Your task to perform on an android device: Is it going to rain this weekend? Image 0: 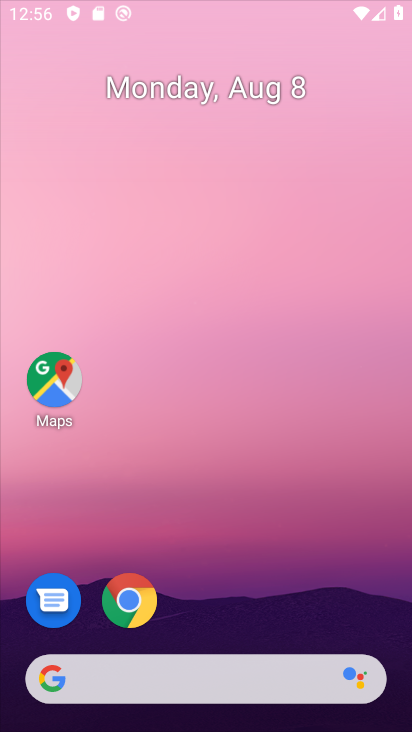
Step 0: press home button
Your task to perform on an android device: Is it going to rain this weekend? Image 1: 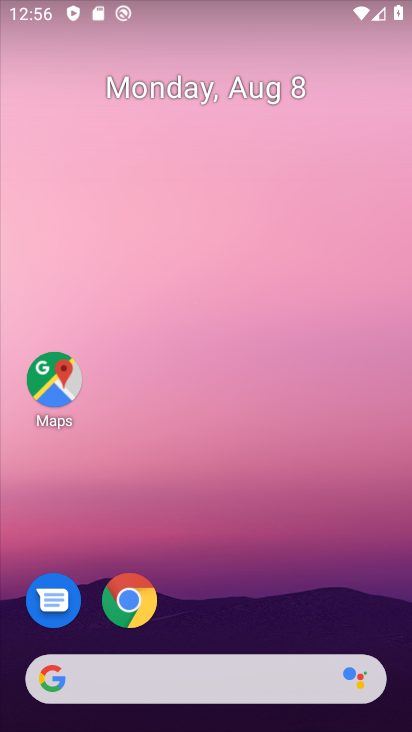
Step 1: drag from (287, 565) to (257, 98)
Your task to perform on an android device: Is it going to rain this weekend? Image 2: 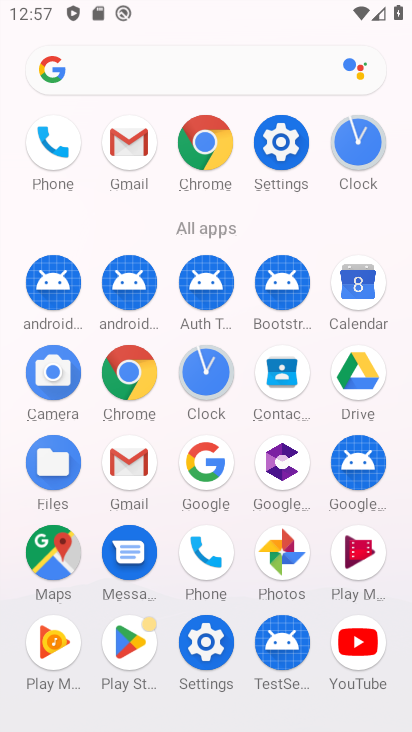
Step 2: click (216, 137)
Your task to perform on an android device: Is it going to rain this weekend? Image 3: 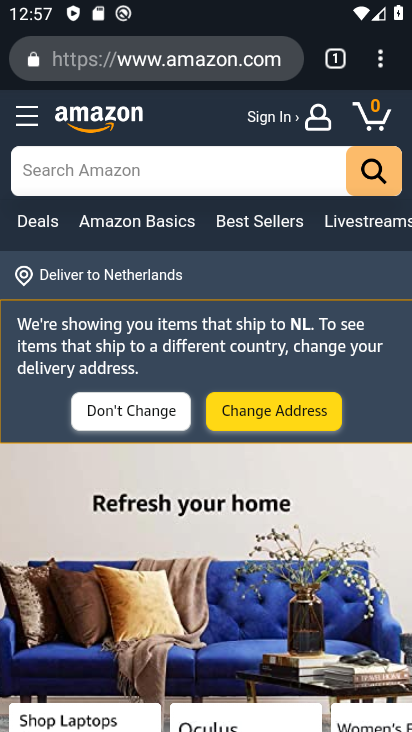
Step 3: click (246, 55)
Your task to perform on an android device: Is it going to rain this weekend? Image 4: 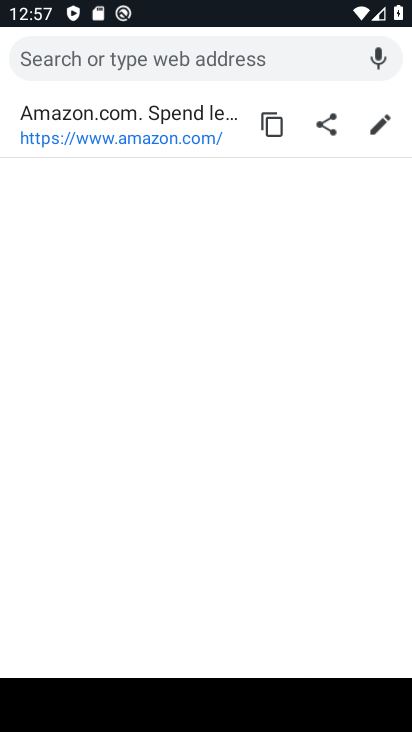
Step 4: type "Is it going to rain this weekend?"
Your task to perform on an android device: Is it going to rain this weekend? Image 5: 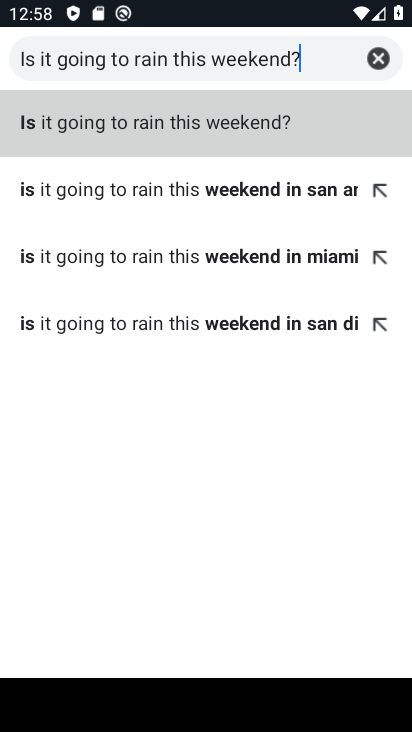
Step 5: click (249, 124)
Your task to perform on an android device: Is it going to rain this weekend? Image 6: 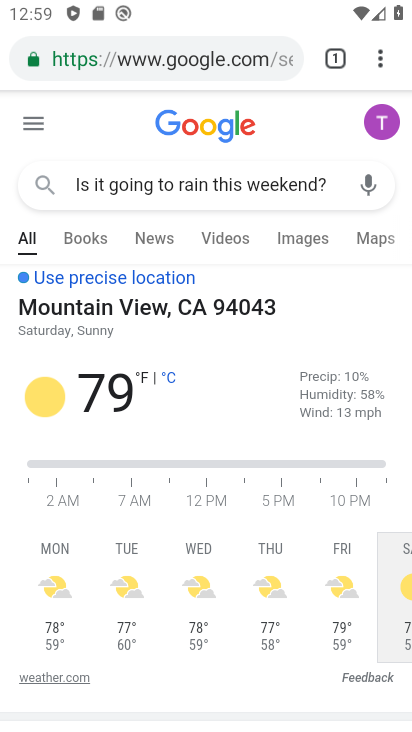
Step 6: task complete